Your task to perform on an android device: Open Google Image 0: 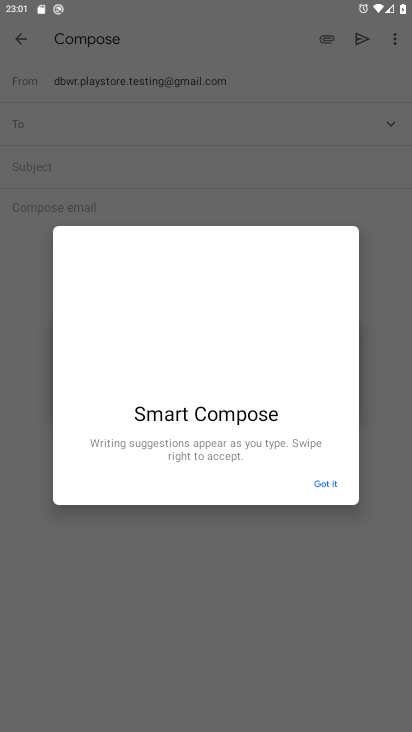
Step 0: press home button
Your task to perform on an android device: Open Google Image 1: 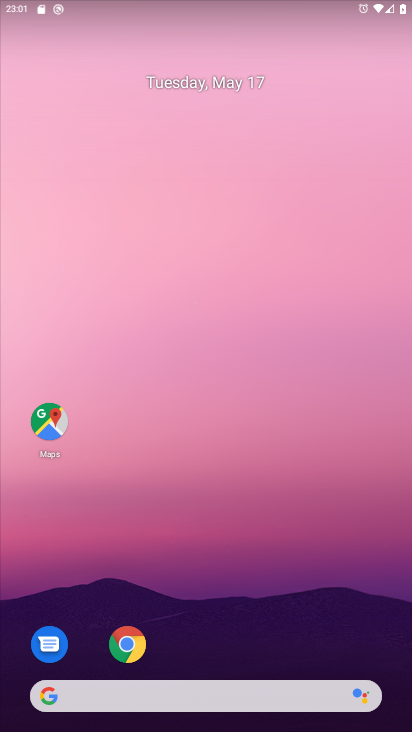
Step 1: drag from (220, 646) to (259, 83)
Your task to perform on an android device: Open Google Image 2: 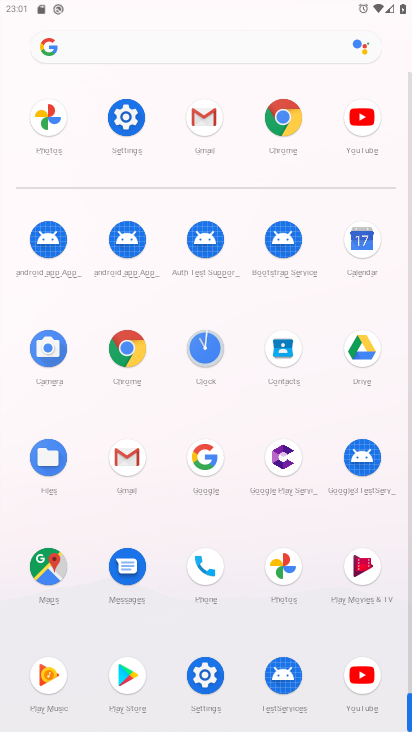
Step 2: click (207, 463)
Your task to perform on an android device: Open Google Image 3: 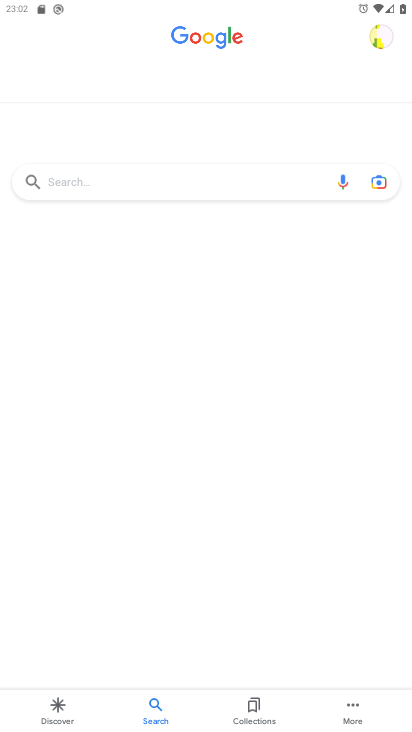
Step 3: task complete